Your task to perform on an android device: Open calendar and show me the first week of next month Image 0: 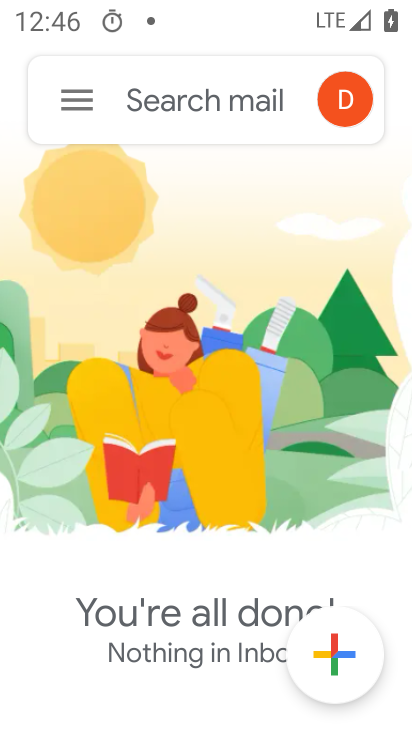
Step 0: press home button
Your task to perform on an android device: Open calendar and show me the first week of next month Image 1: 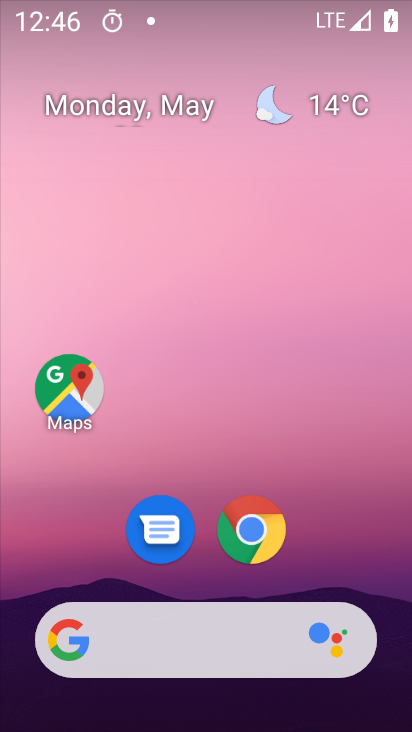
Step 1: drag from (374, 532) to (363, 207)
Your task to perform on an android device: Open calendar and show me the first week of next month Image 2: 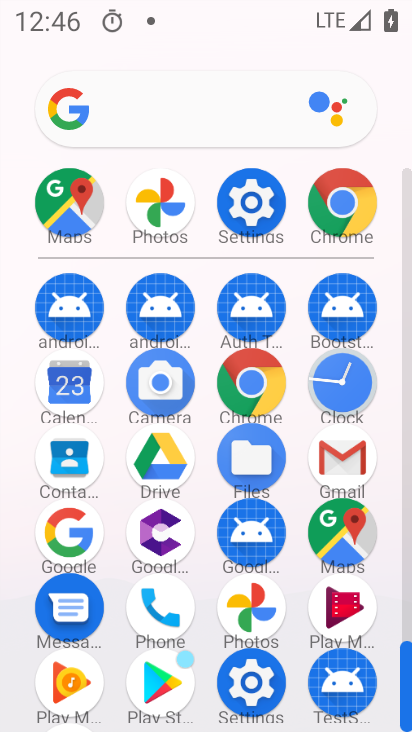
Step 2: click (74, 384)
Your task to perform on an android device: Open calendar and show me the first week of next month Image 3: 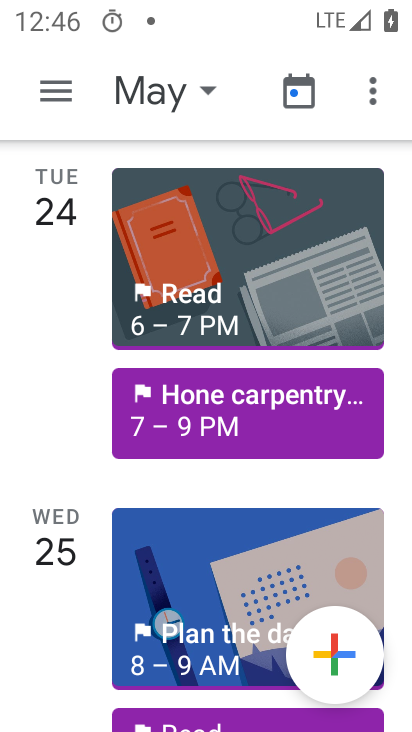
Step 3: click (221, 110)
Your task to perform on an android device: Open calendar and show me the first week of next month Image 4: 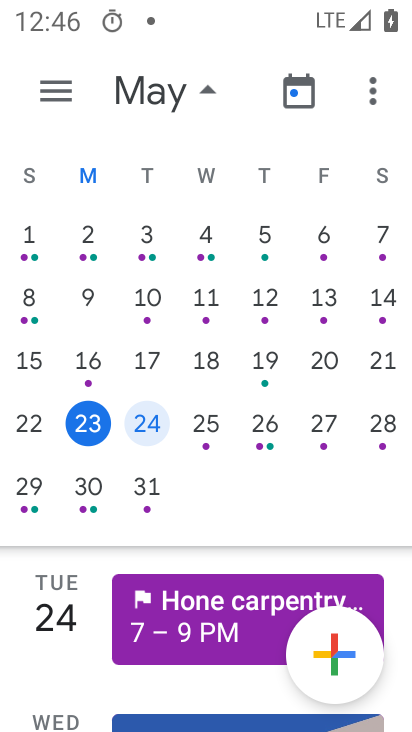
Step 4: click (211, 100)
Your task to perform on an android device: Open calendar and show me the first week of next month Image 5: 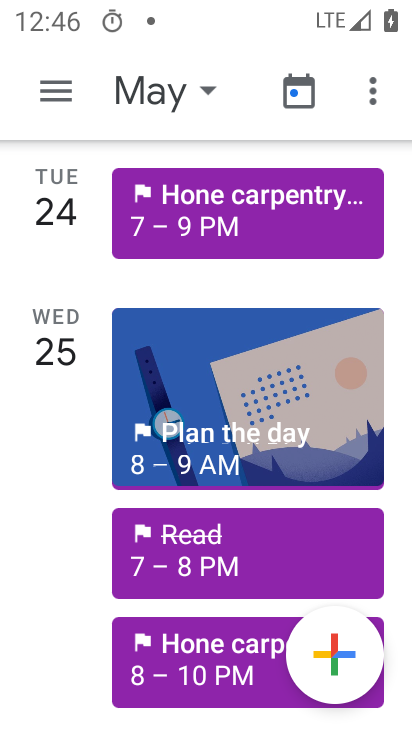
Step 5: click (214, 103)
Your task to perform on an android device: Open calendar and show me the first week of next month Image 6: 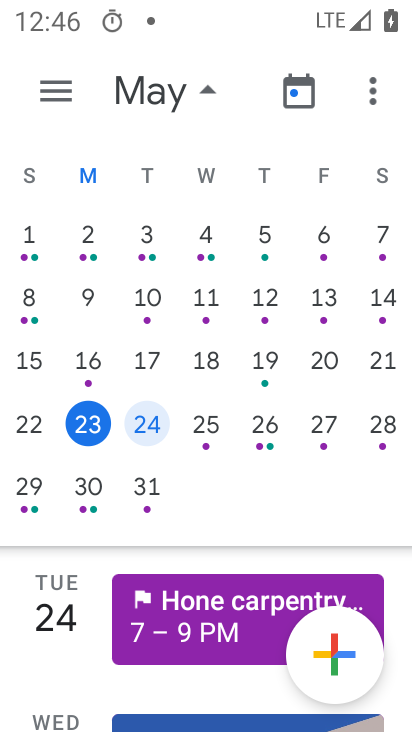
Step 6: drag from (400, 205) to (42, 223)
Your task to perform on an android device: Open calendar and show me the first week of next month Image 7: 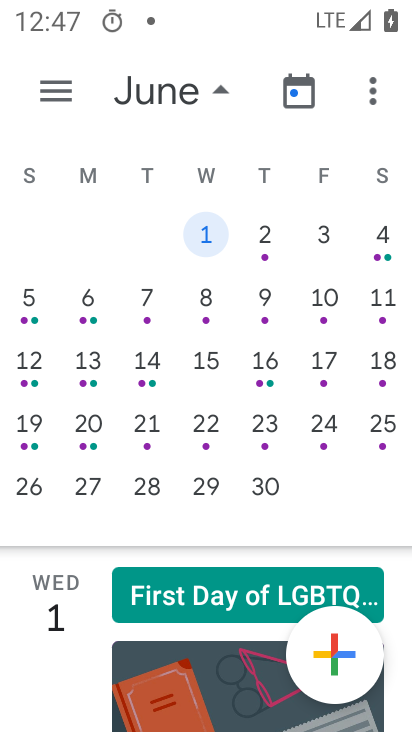
Step 7: click (276, 231)
Your task to perform on an android device: Open calendar and show me the first week of next month Image 8: 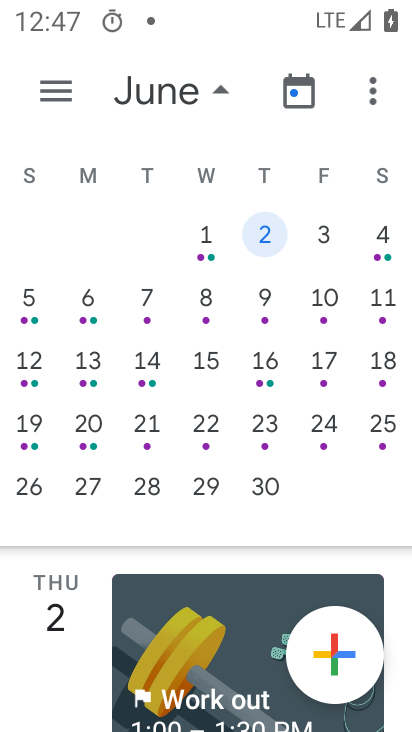
Step 8: task complete